Your task to perform on an android device: delete a single message in the gmail app Image 0: 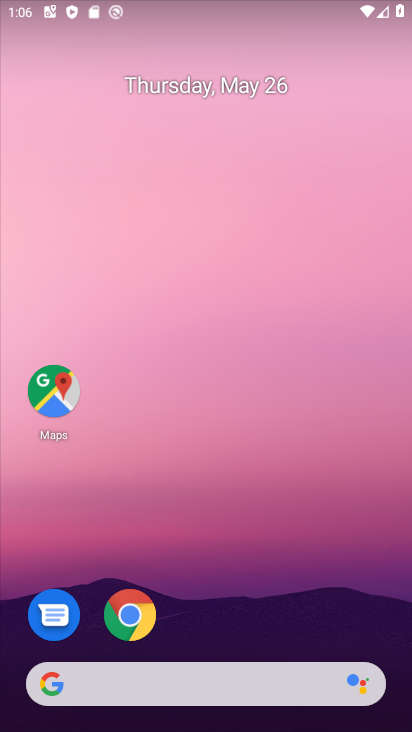
Step 0: drag from (228, 656) to (291, 80)
Your task to perform on an android device: delete a single message in the gmail app Image 1: 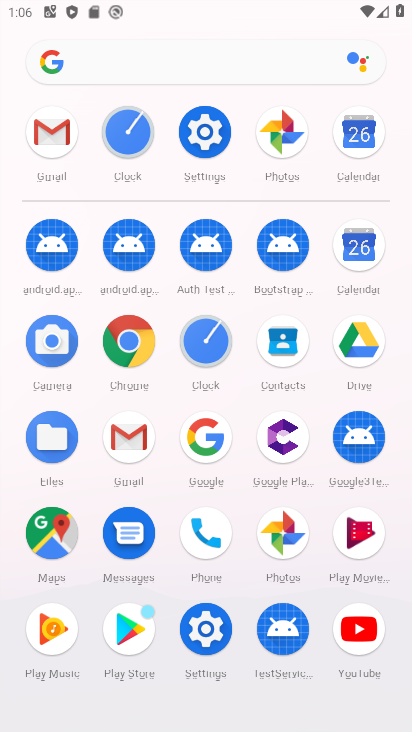
Step 1: click (48, 133)
Your task to perform on an android device: delete a single message in the gmail app Image 2: 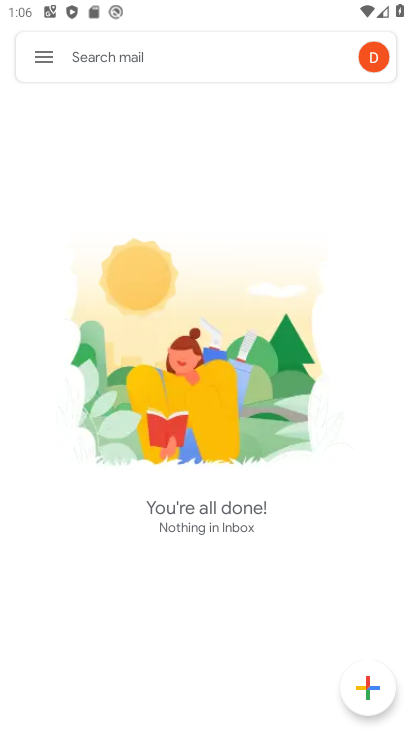
Step 2: click (51, 70)
Your task to perform on an android device: delete a single message in the gmail app Image 3: 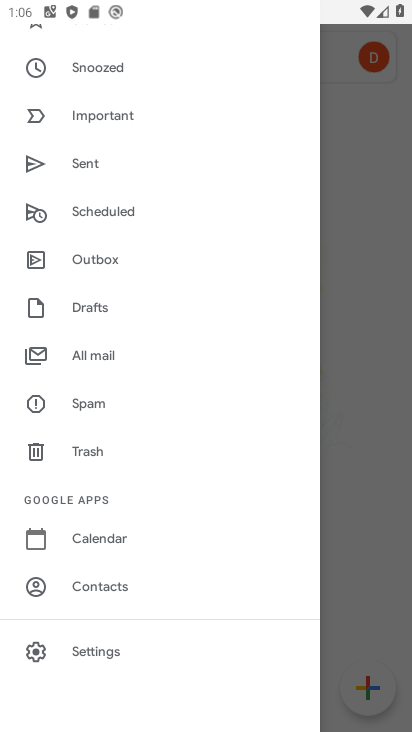
Step 3: click (124, 354)
Your task to perform on an android device: delete a single message in the gmail app Image 4: 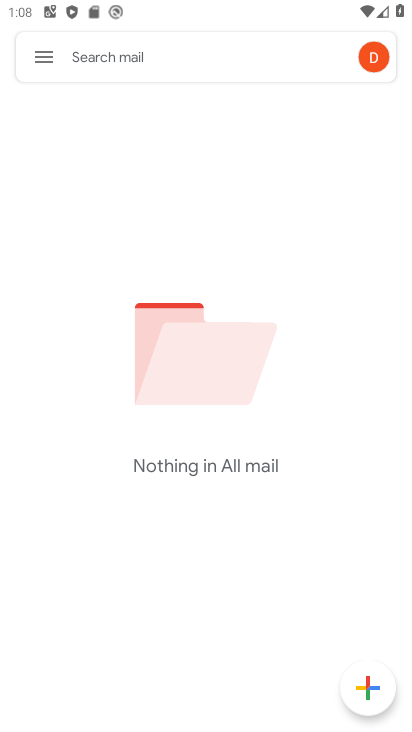
Step 4: task complete